Your task to perform on an android device: Go to battery settings Image 0: 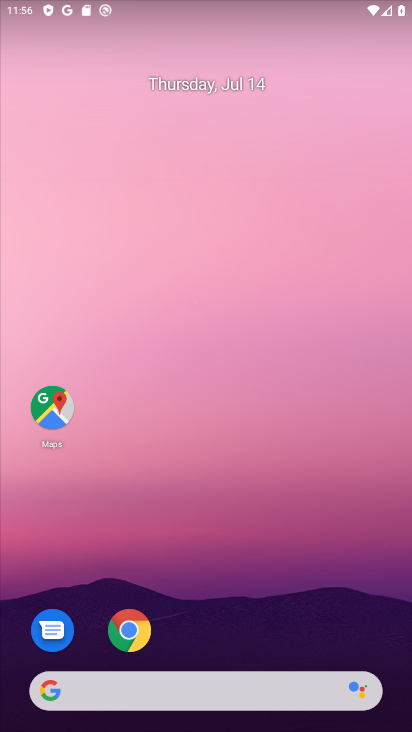
Step 0: drag from (204, 620) to (319, 101)
Your task to perform on an android device: Go to battery settings Image 1: 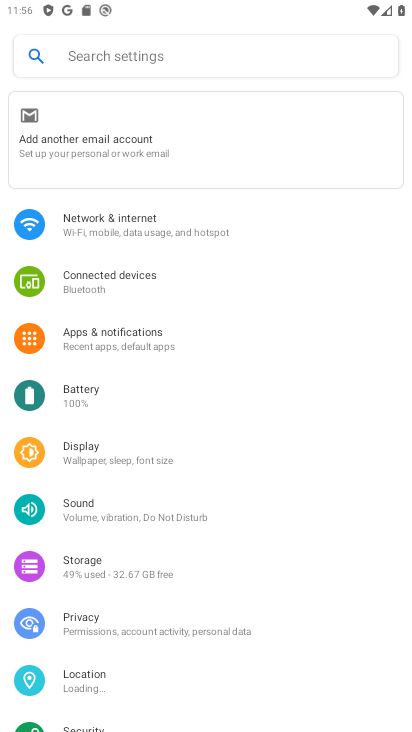
Step 1: click (96, 403)
Your task to perform on an android device: Go to battery settings Image 2: 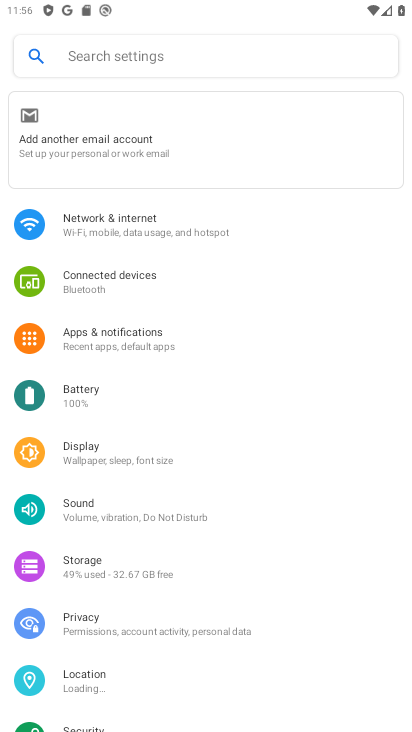
Step 2: click (95, 402)
Your task to perform on an android device: Go to battery settings Image 3: 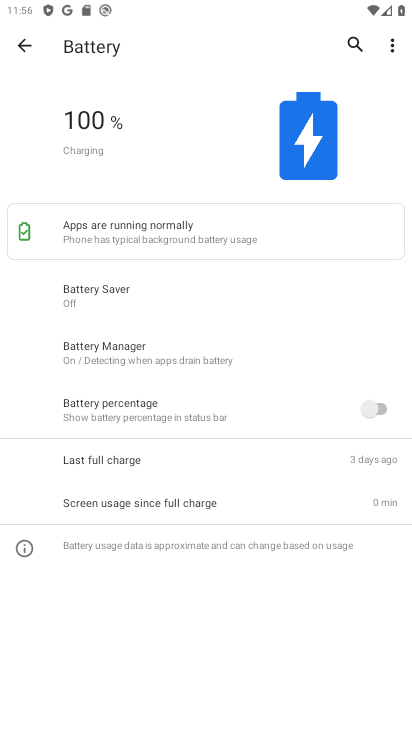
Step 3: task complete